Your task to perform on an android device: Go to settings Image 0: 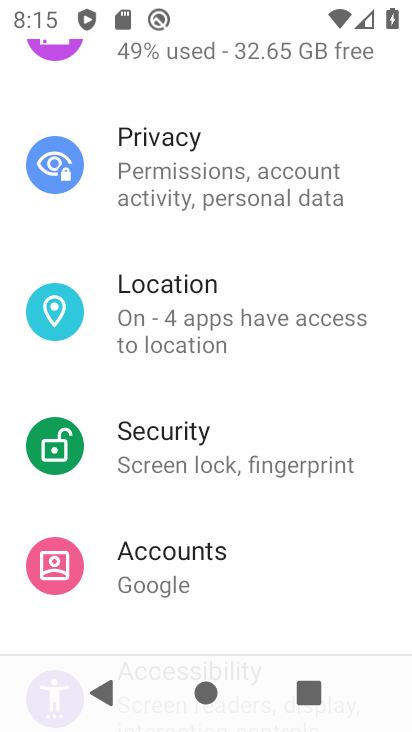
Step 0: drag from (188, 267) to (174, 195)
Your task to perform on an android device: Go to settings Image 1: 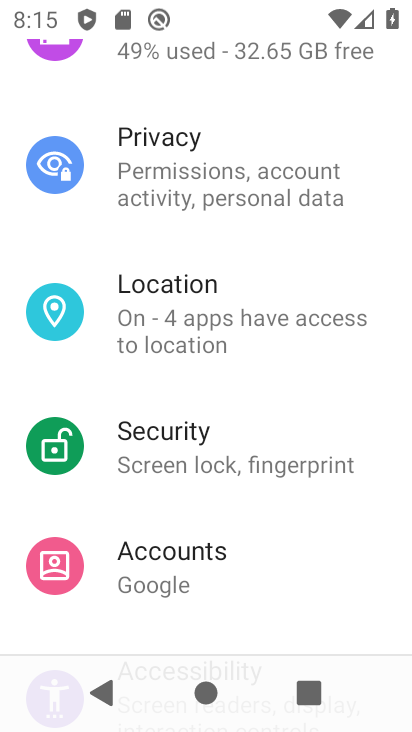
Step 1: task complete